Your task to perform on an android device: turn off location history Image 0: 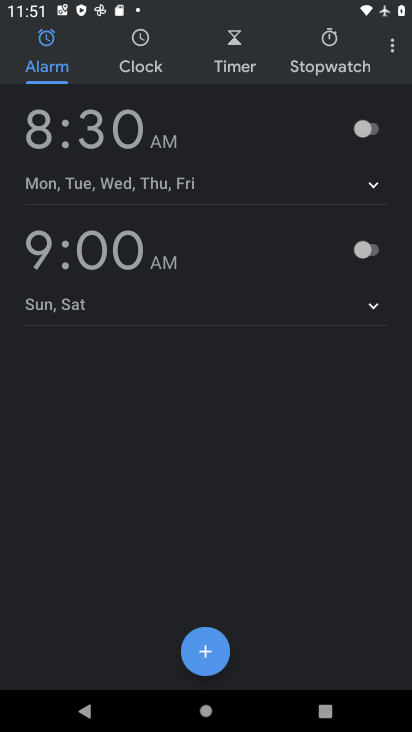
Step 0: press home button
Your task to perform on an android device: turn off location history Image 1: 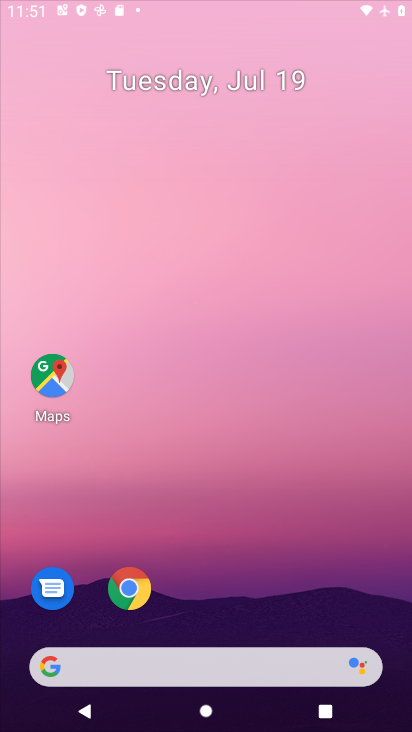
Step 1: drag from (388, 666) to (251, 44)
Your task to perform on an android device: turn off location history Image 2: 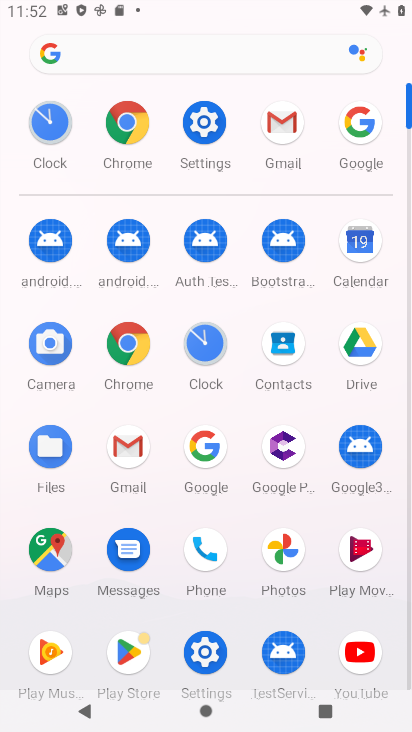
Step 2: click (214, 663)
Your task to perform on an android device: turn off location history Image 3: 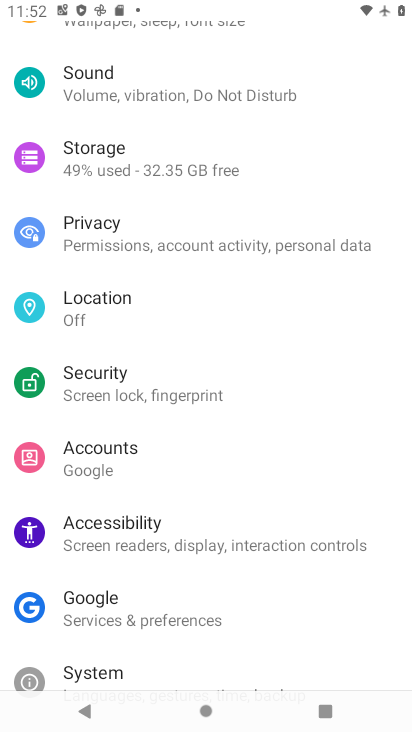
Step 3: click (90, 331)
Your task to perform on an android device: turn off location history Image 4: 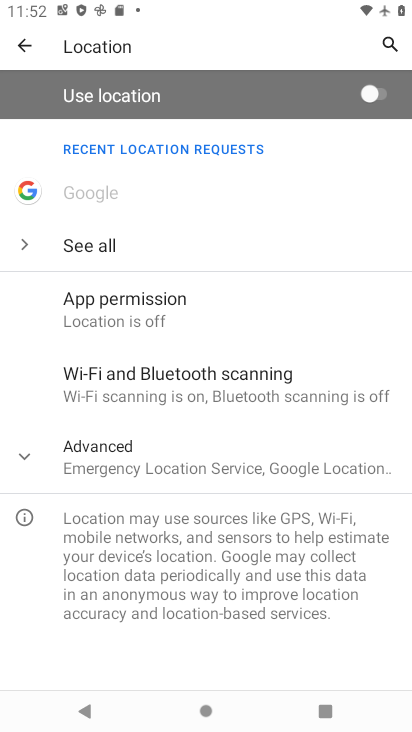
Step 4: click (114, 460)
Your task to perform on an android device: turn off location history Image 5: 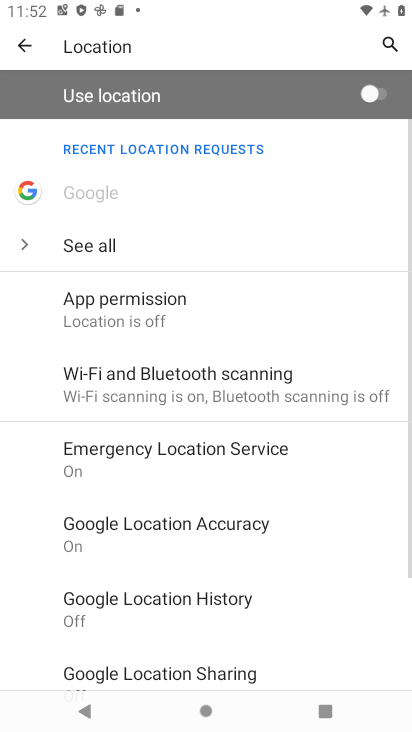
Step 5: click (225, 594)
Your task to perform on an android device: turn off location history Image 6: 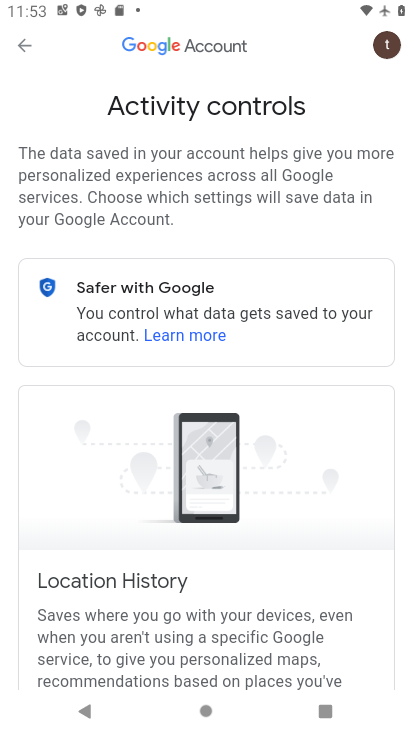
Step 6: drag from (236, 412) to (174, 134)
Your task to perform on an android device: turn off location history Image 7: 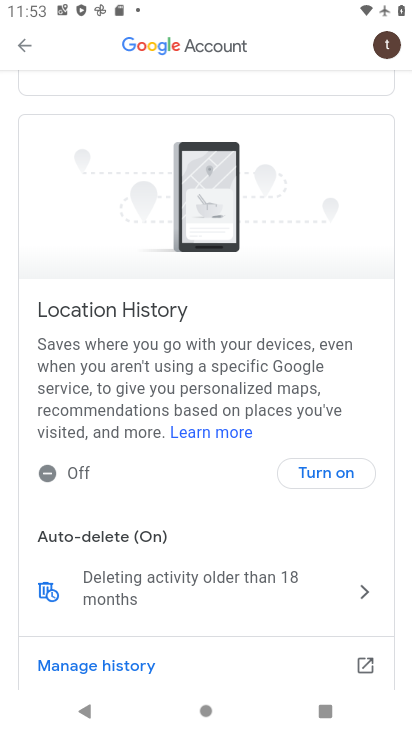
Step 7: click (337, 469)
Your task to perform on an android device: turn off location history Image 8: 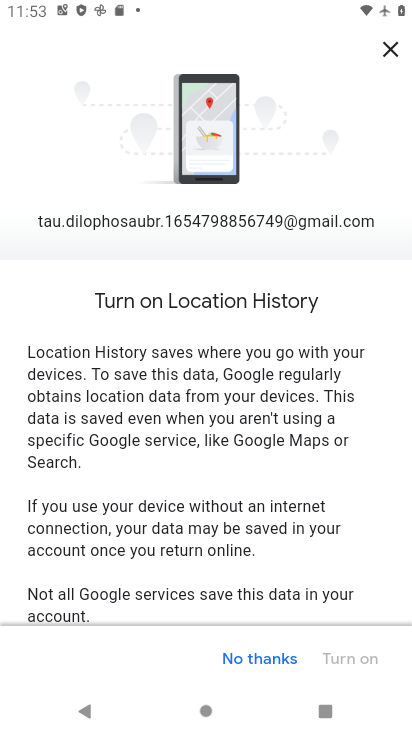
Step 8: task complete